Your task to perform on an android device: open wifi settings Image 0: 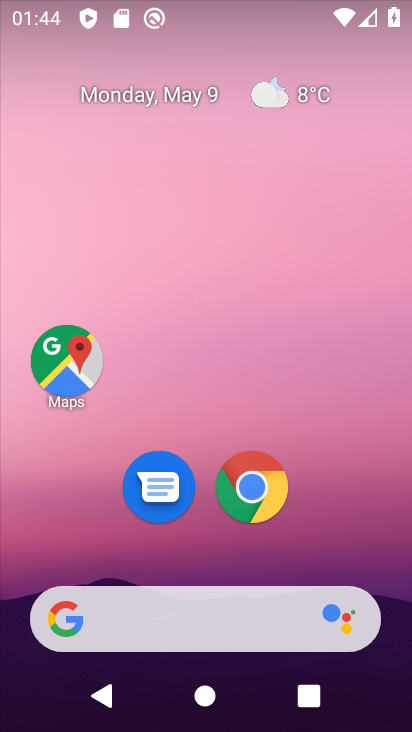
Step 0: drag from (307, 8) to (304, 426)
Your task to perform on an android device: open wifi settings Image 1: 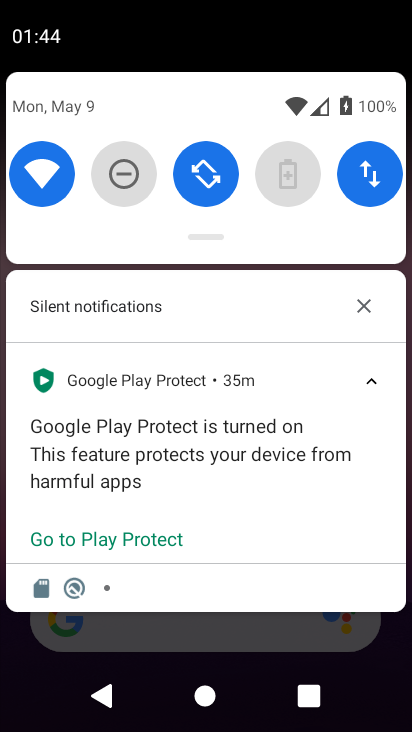
Step 1: click (49, 162)
Your task to perform on an android device: open wifi settings Image 2: 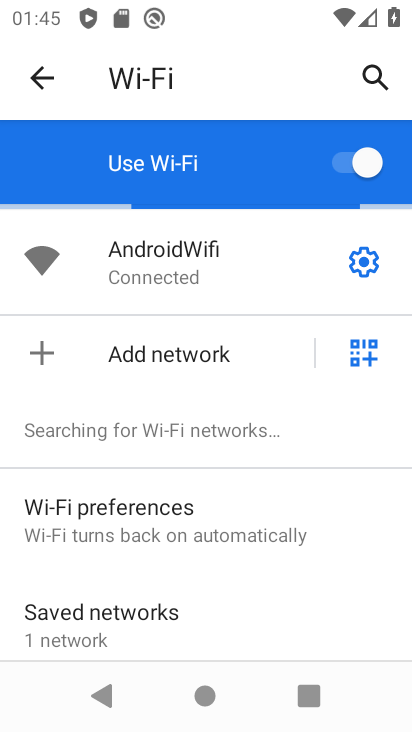
Step 2: task complete